Your task to perform on an android device: clear history in the chrome app Image 0: 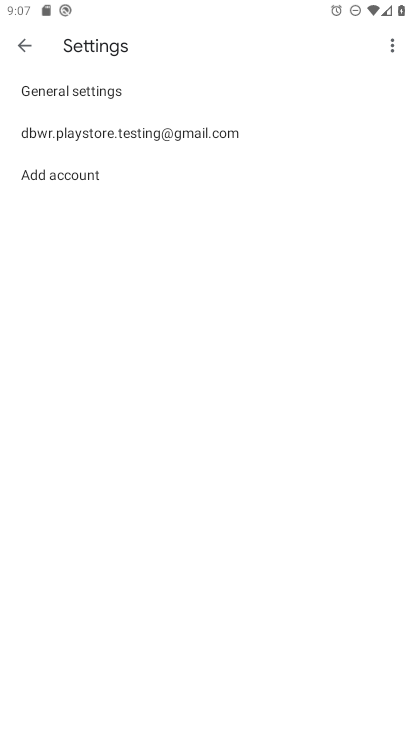
Step 0: press home button
Your task to perform on an android device: clear history in the chrome app Image 1: 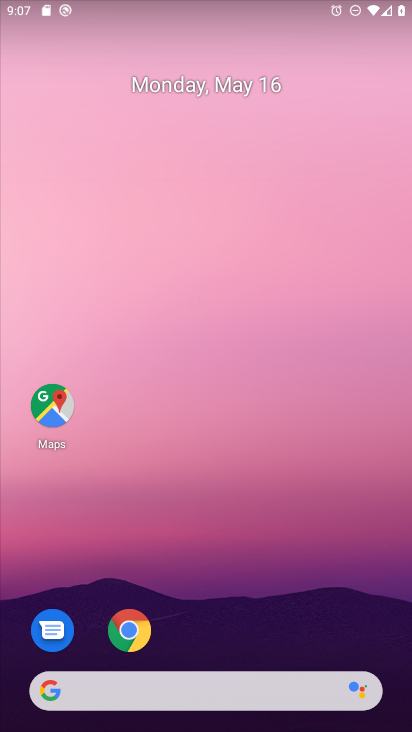
Step 1: click (127, 626)
Your task to perform on an android device: clear history in the chrome app Image 2: 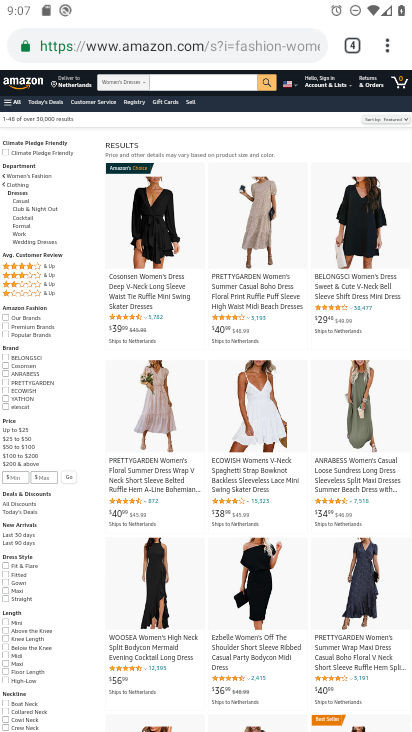
Step 2: click (379, 38)
Your task to perform on an android device: clear history in the chrome app Image 3: 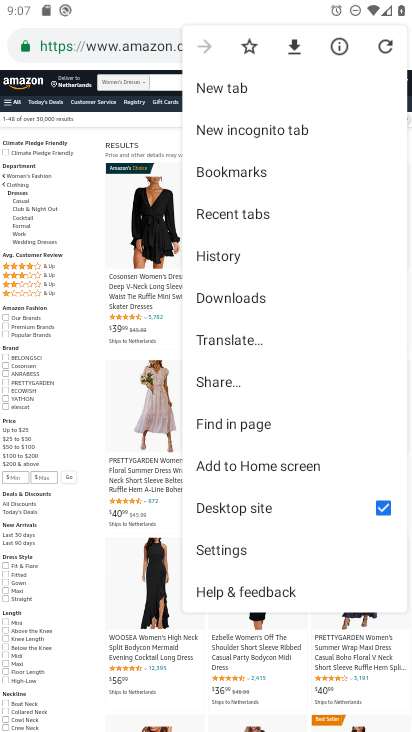
Step 3: click (225, 548)
Your task to perform on an android device: clear history in the chrome app Image 4: 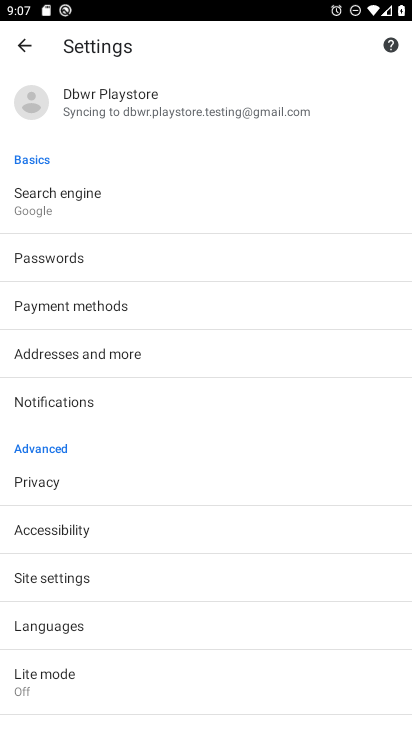
Step 4: click (211, 588)
Your task to perform on an android device: clear history in the chrome app Image 5: 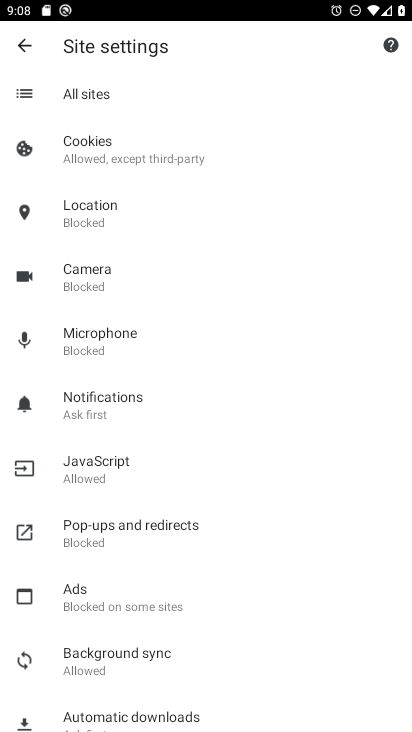
Step 5: drag from (294, 535) to (301, 96)
Your task to perform on an android device: clear history in the chrome app Image 6: 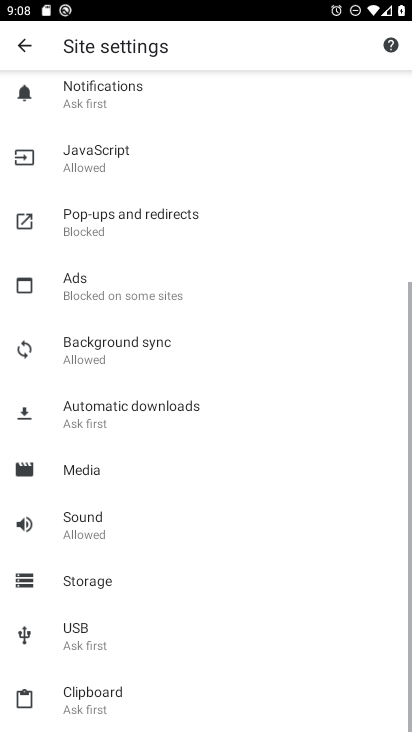
Step 6: drag from (296, 502) to (283, 59)
Your task to perform on an android device: clear history in the chrome app Image 7: 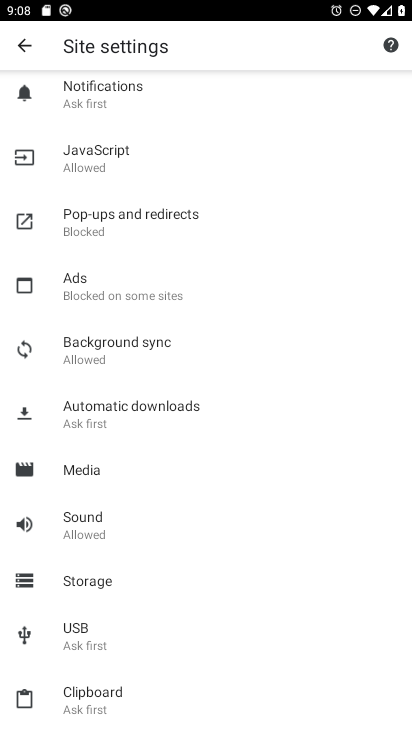
Step 7: press back button
Your task to perform on an android device: clear history in the chrome app Image 8: 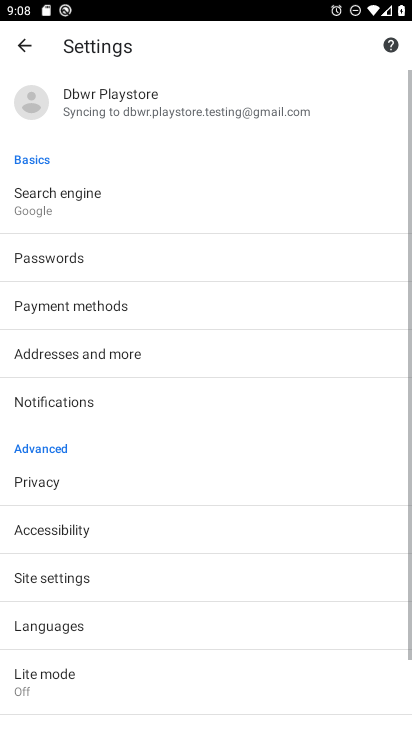
Step 8: click (125, 469)
Your task to perform on an android device: clear history in the chrome app Image 9: 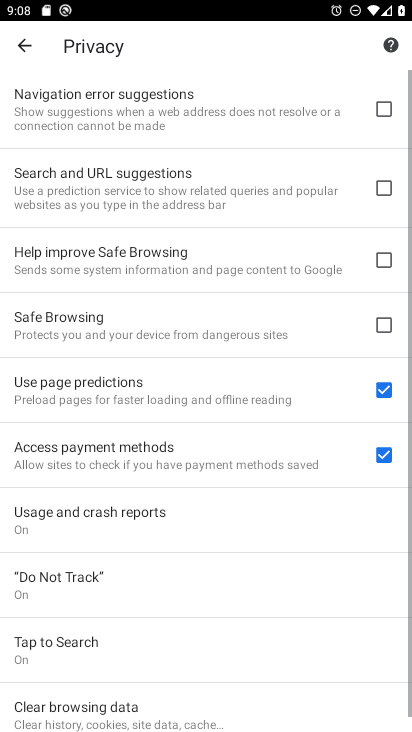
Step 9: drag from (156, 564) to (221, 194)
Your task to perform on an android device: clear history in the chrome app Image 10: 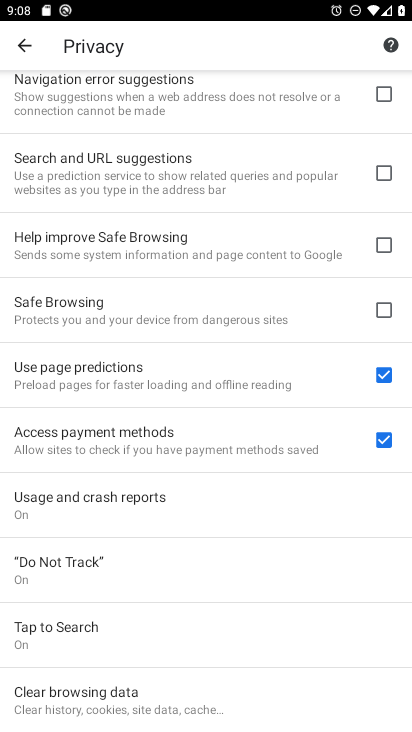
Step 10: click (157, 689)
Your task to perform on an android device: clear history in the chrome app Image 11: 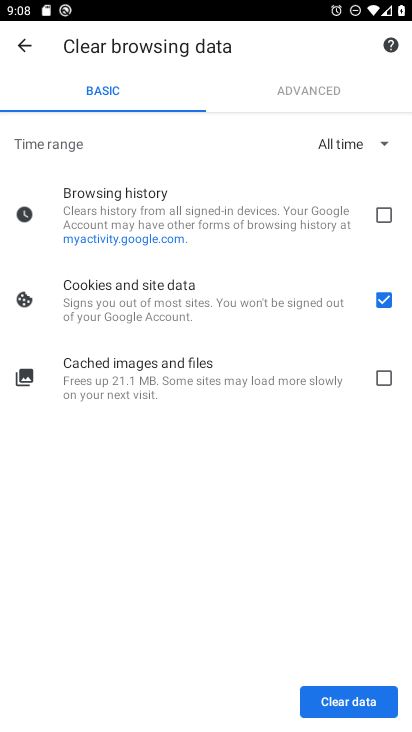
Step 11: click (380, 212)
Your task to perform on an android device: clear history in the chrome app Image 12: 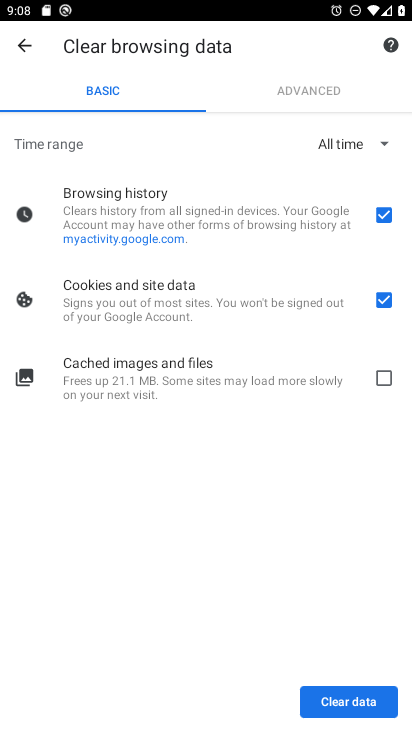
Step 12: click (385, 299)
Your task to perform on an android device: clear history in the chrome app Image 13: 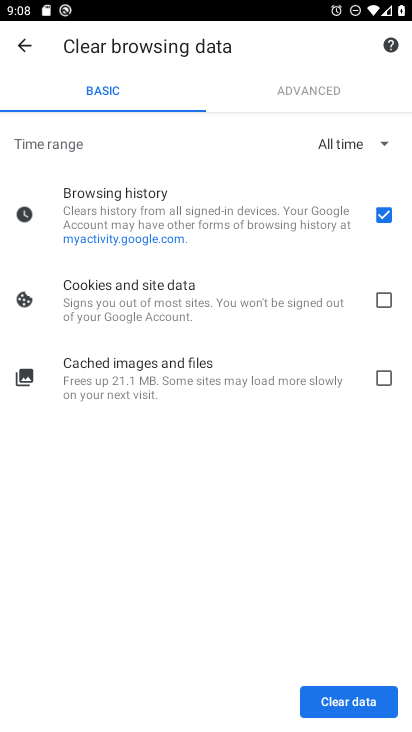
Step 13: click (354, 698)
Your task to perform on an android device: clear history in the chrome app Image 14: 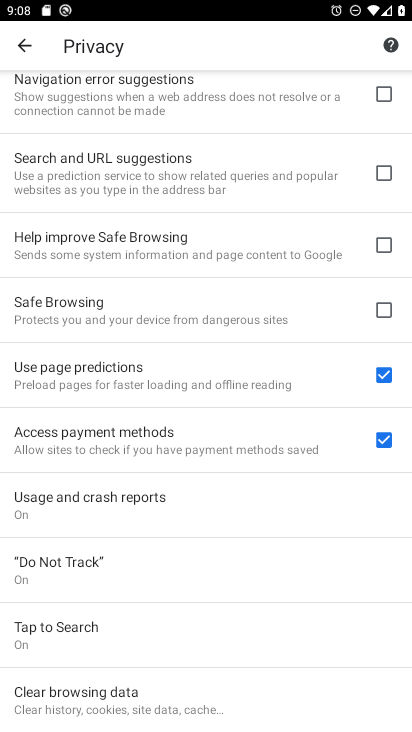
Step 14: drag from (169, 614) to (146, 314)
Your task to perform on an android device: clear history in the chrome app Image 15: 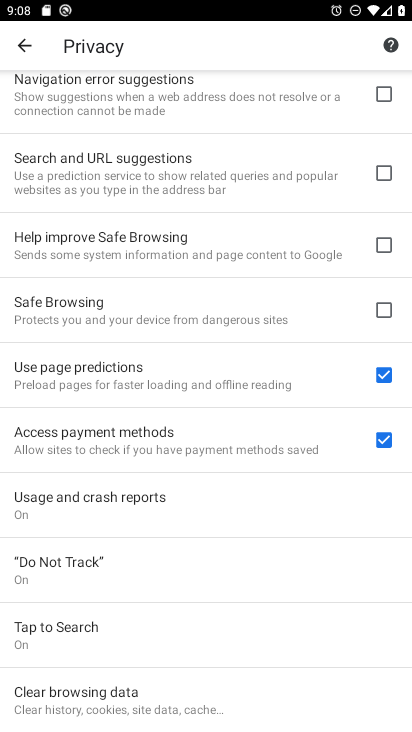
Step 15: drag from (206, 141) to (209, 570)
Your task to perform on an android device: clear history in the chrome app Image 16: 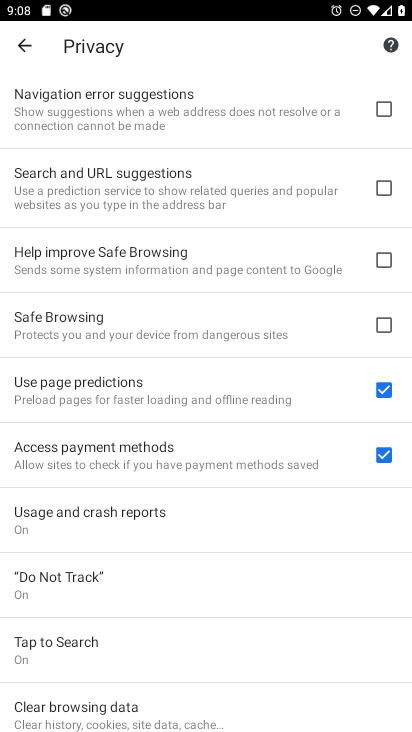
Step 16: click (178, 696)
Your task to perform on an android device: clear history in the chrome app Image 17: 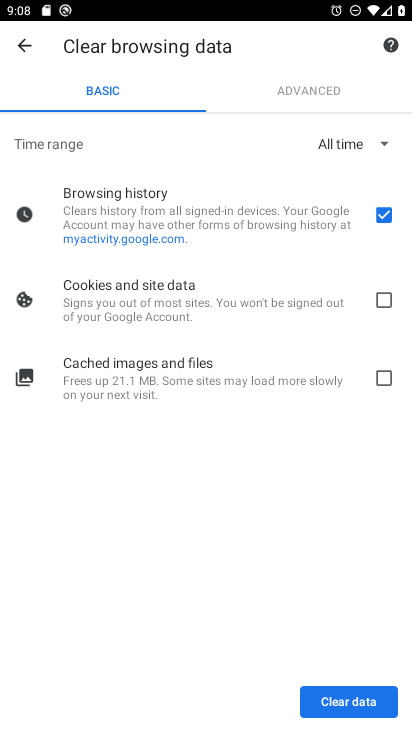
Step 17: click (343, 689)
Your task to perform on an android device: clear history in the chrome app Image 18: 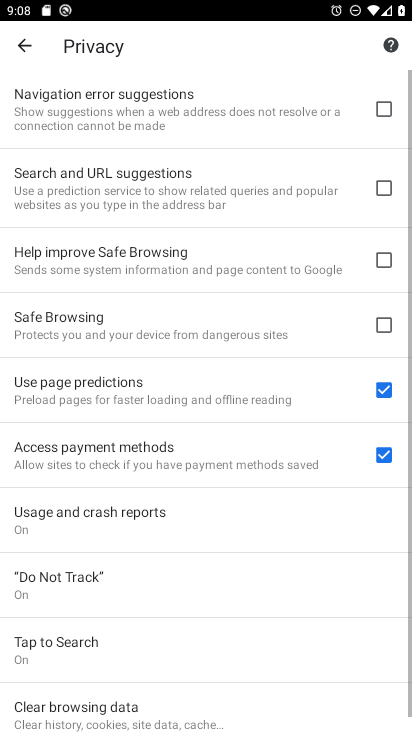
Step 18: click (313, 675)
Your task to perform on an android device: clear history in the chrome app Image 19: 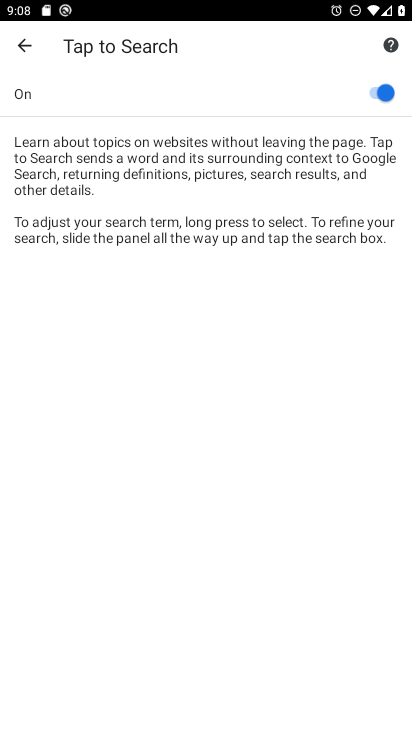
Step 19: click (30, 39)
Your task to perform on an android device: clear history in the chrome app Image 20: 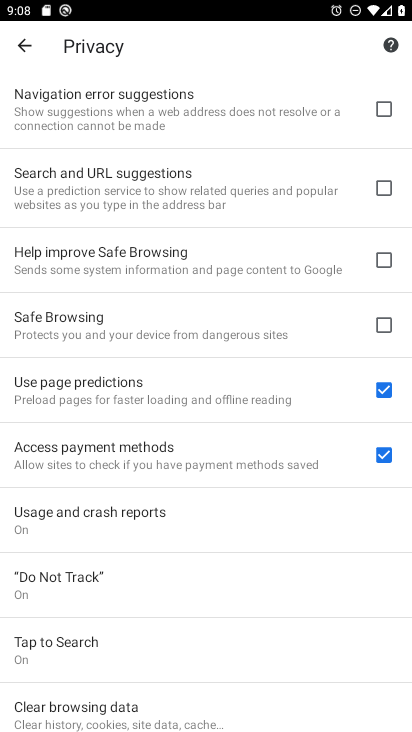
Step 20: task complete